Your task to perform on an android device: remove spam from my inbox in the gmail app Image 0: 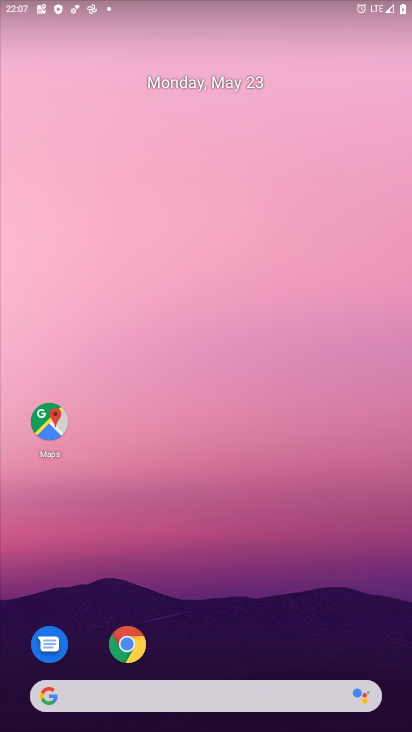
Step 0: drag from (252, 722) to (257, 54)
Your task to perform on an android device: remove spam from my inbox in the gmail app Image 1: 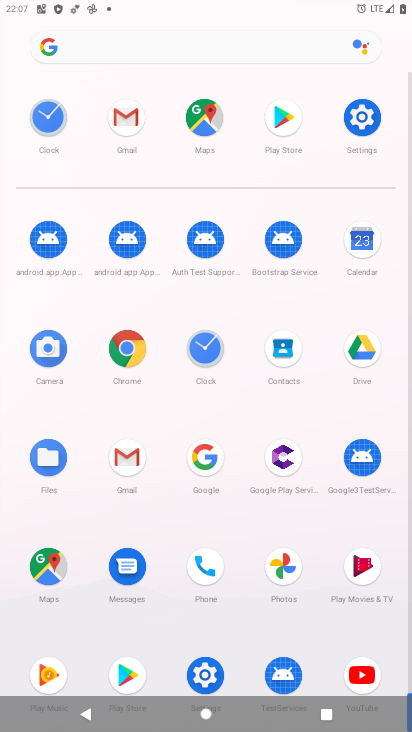
Step 1: click (129, 459)
Your task to perform on an android device: remove spam from my inbox in the gmail app Image 2: 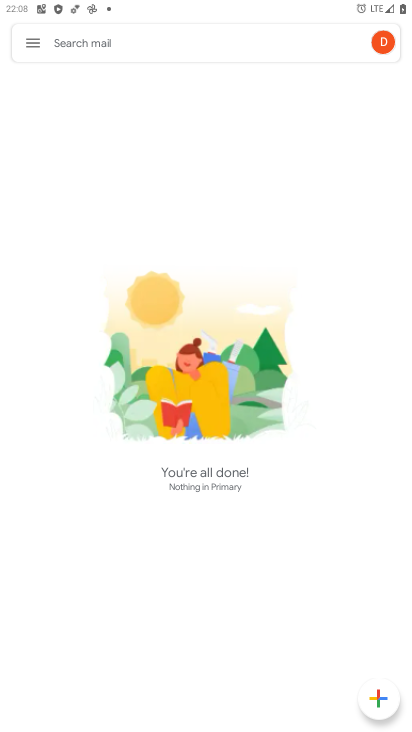
Step 2: click (30, 43)
Your task to perform on an android device: remove spam from my inbox in the gmail app Image 3: 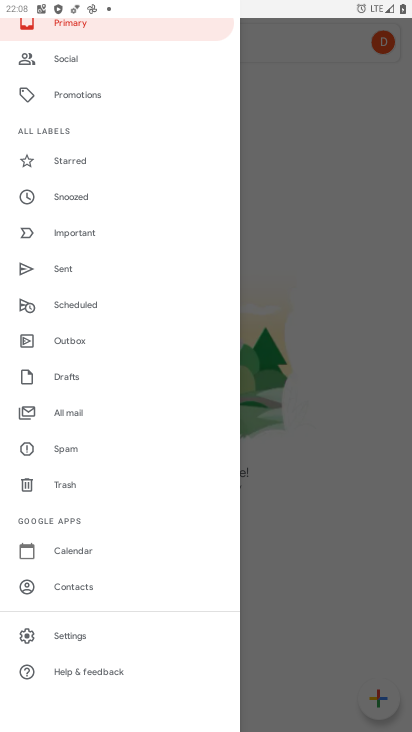
Step 3: click (80, 450)
Your task to perform on an android device: remove spam from my inbox in the gmail app Image 4: 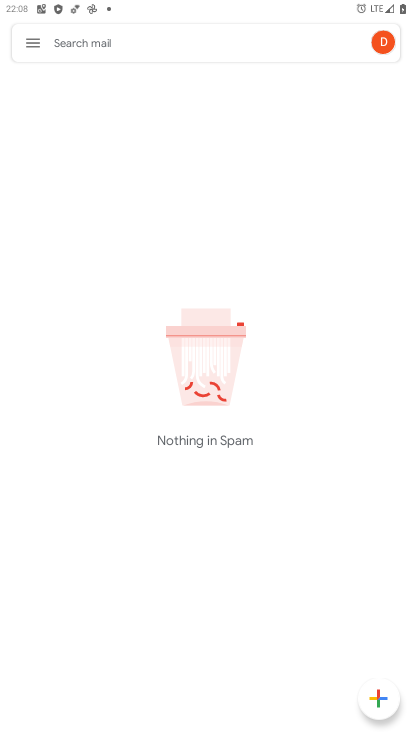
Step 4: task complete